Your task to perform on an android device: Open calendar and show me the third week of next month Image 0: 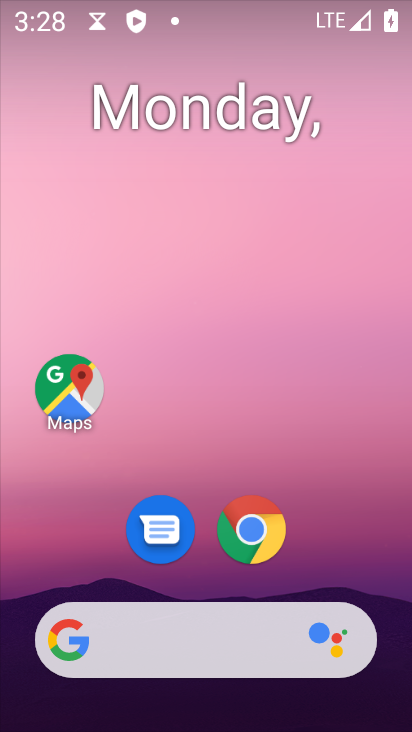
Step 0: drag from (212, 508) to (292, 280)
Your task to perform on an android device: Open calendar and show me the third week of next month Image 1: 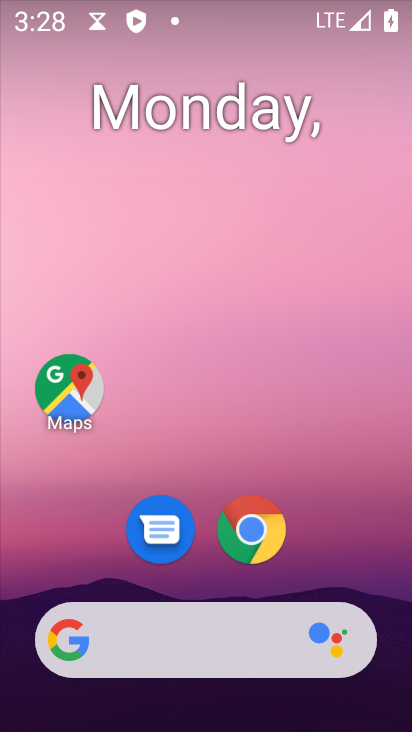
Step 1: drag from (198, 538) to (395, 1)
Your task to perform on an android device: Open calendar and show me the third week of next month Image 2: 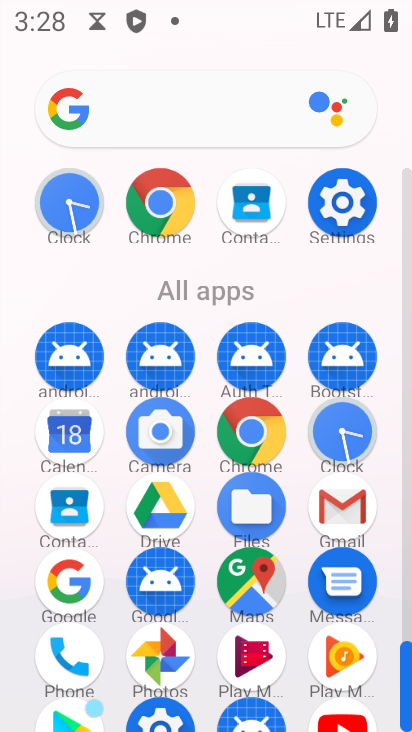
Step 2: click (74, 434)
Your task to perform on an android device: Open calendar and show me the third week of next month Image 3: 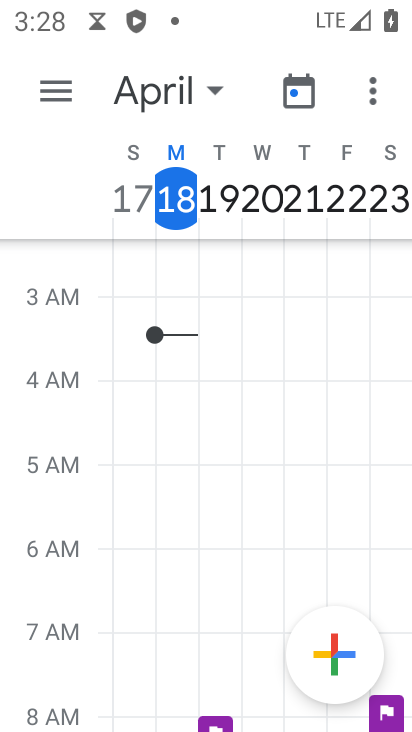
Step 3: click (190, 95)
Your task to perform on an android device: Open calendar and show me the third week of next month Image 4: 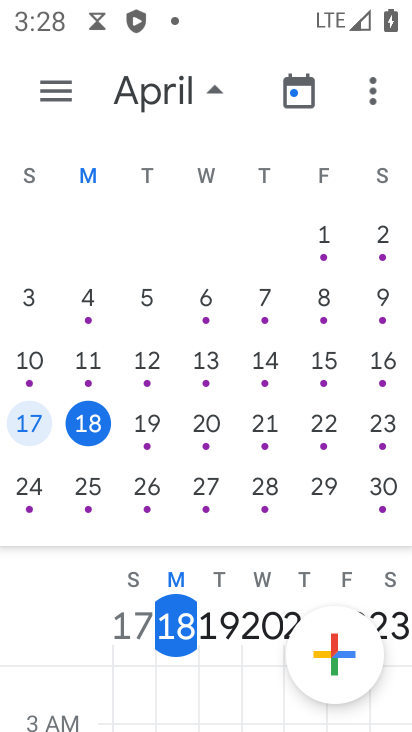
Step 4: drag from (316, 268) to (6, 192)
Your task to perform on an android device: Open calendar and show me the third week of next month Image 5: 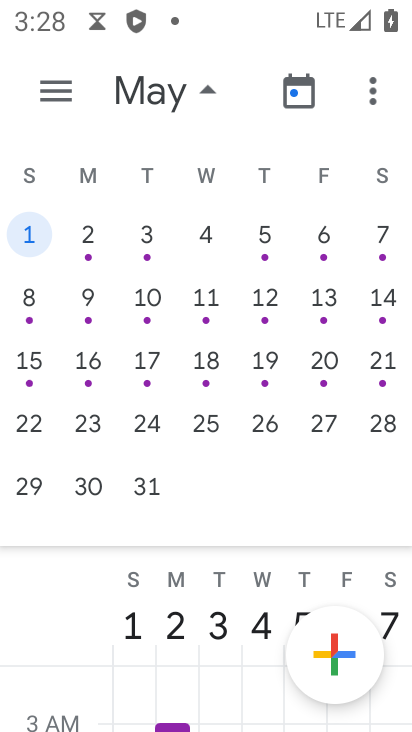
Step 5: click (68, 95)
Your task to perform on an android device: Open calendar and show me the third week of next month Image 6: 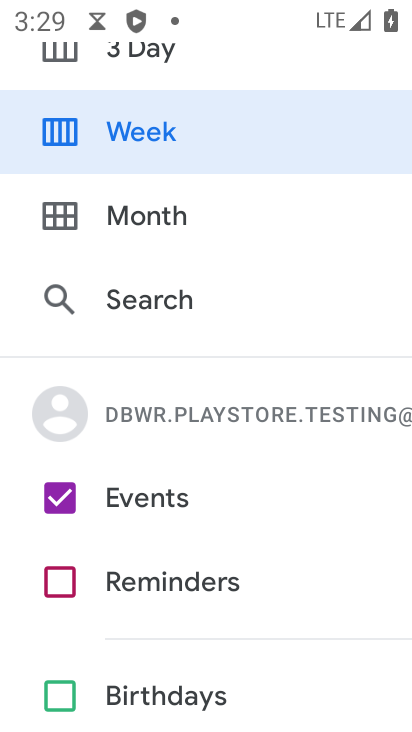
Step 6: click (160, 144)
Your task to perform on an android device: Open calendar and show me the third week of next month Image 7: 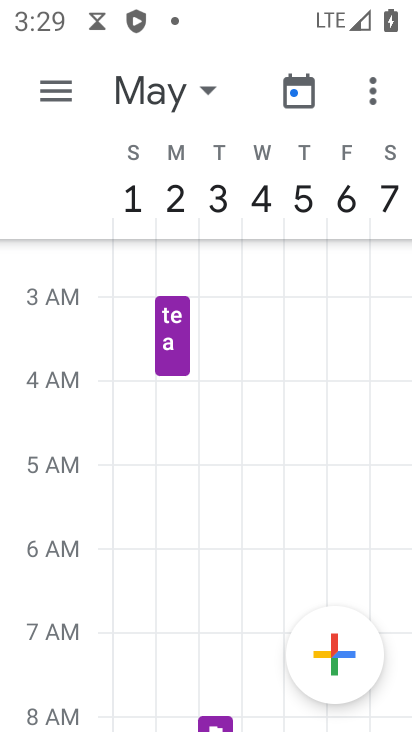
Step 7: task complete